Your task to perform on an android device: delete the emails in spam in the gmail app Image 0: 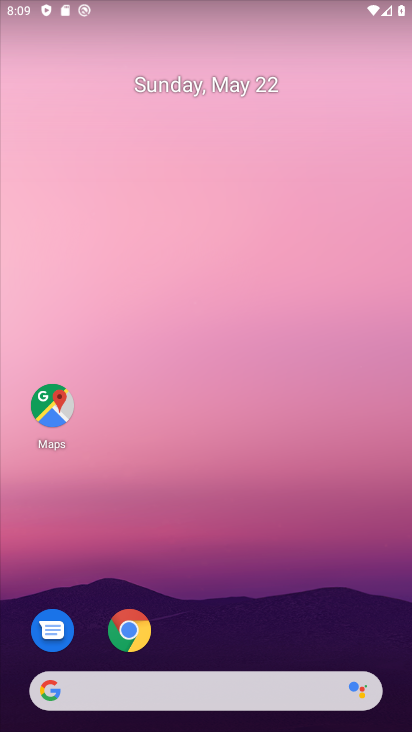
Step 0: press home button
Your task to perform on an android device: delete the emails in spam in the gmail app Image 1: 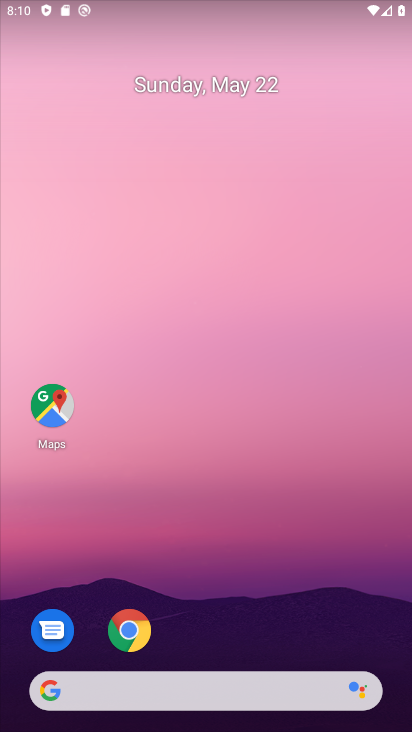
Step 1: drag from (180, 671) to (346, 255)
Your task to perform on an android device: delete the emails in spam in the gmail app Image 2: 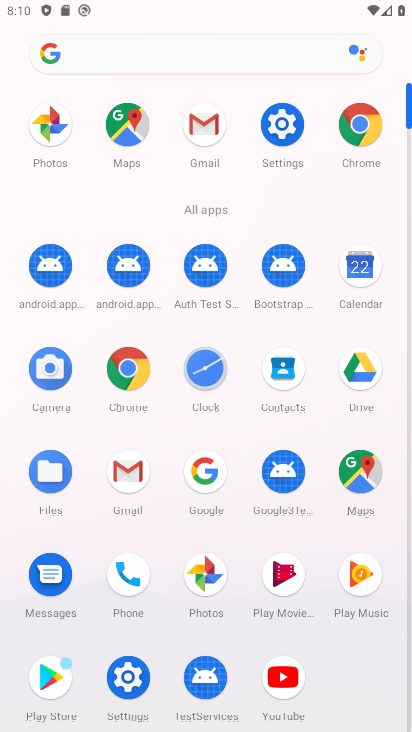
Step 2: click (203, 134)
Your task to perform on an android device: delete the emails in spam in the gmail app Image 3: 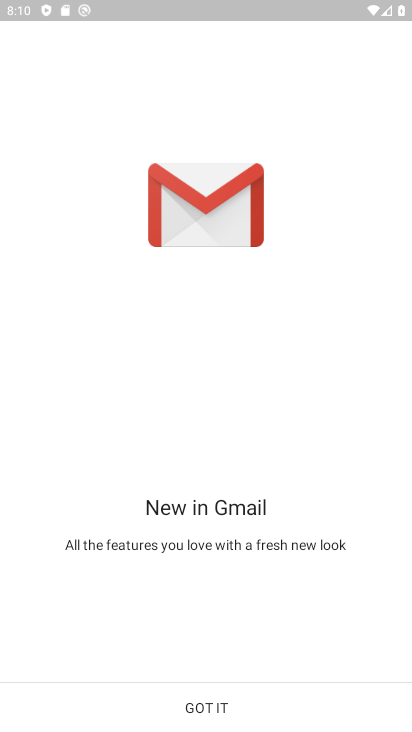
Step 3: click (215, 698)
Your task to perform on an android device: delete the emails in spam in the gmail app Image 4: 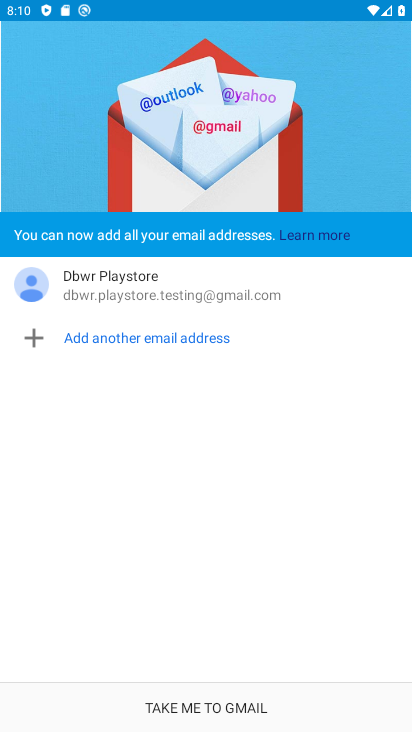
Step 4: click (192, 703)
Your task to perform on an android device: delete the emails in spam in the gmail app Image 5: 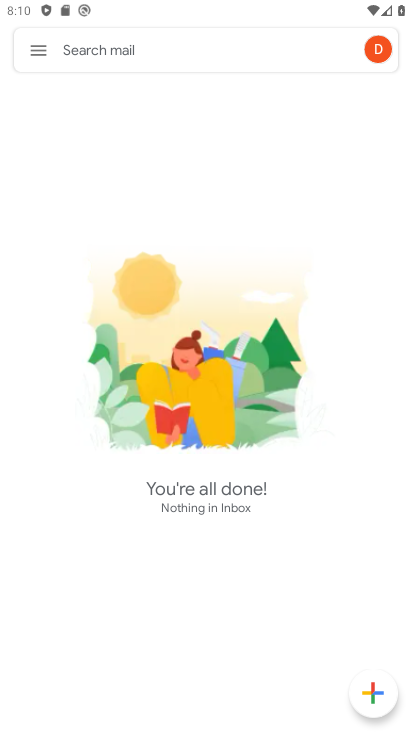
Step 5: click (46, 49)
Your task to perform on an android device: delete the emails in spam in the gmail app Image 6: 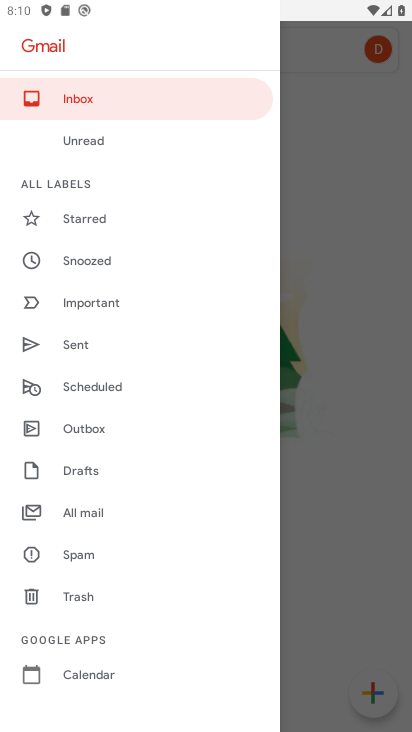
Step 6: click (95, 557)
Your task to perform on an android device: delete the emails in spam in the gmail app Image 7: 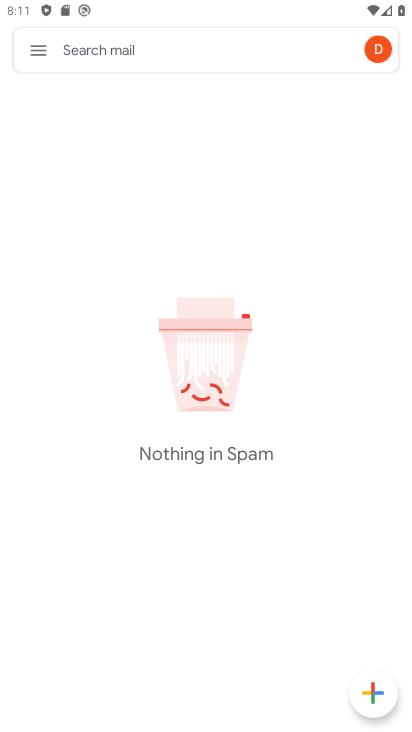
Step 7: task complete